Your task to perform on an android device: turn off airplane mode Image 0: 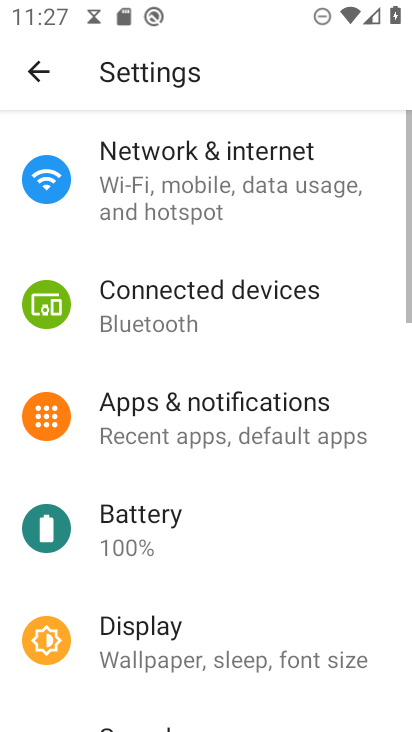
Step 0: press home button
Your task to perform on an android device: turn off airplane mode Image 1: 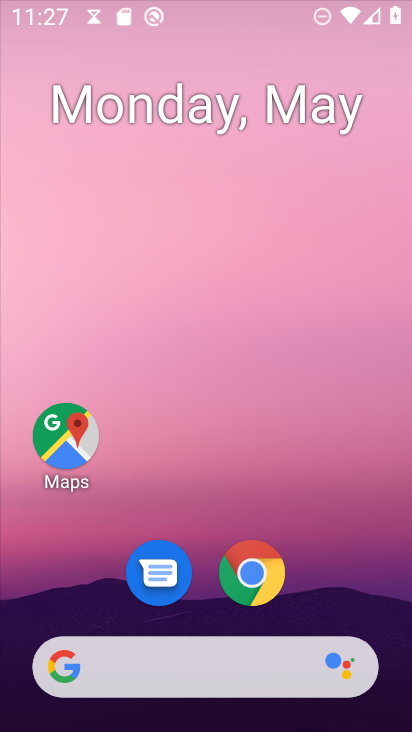
Step 1: drag from (357, 541) to (257, 50)
Your task to perform on an android device: turn off airplane mode Image 2: 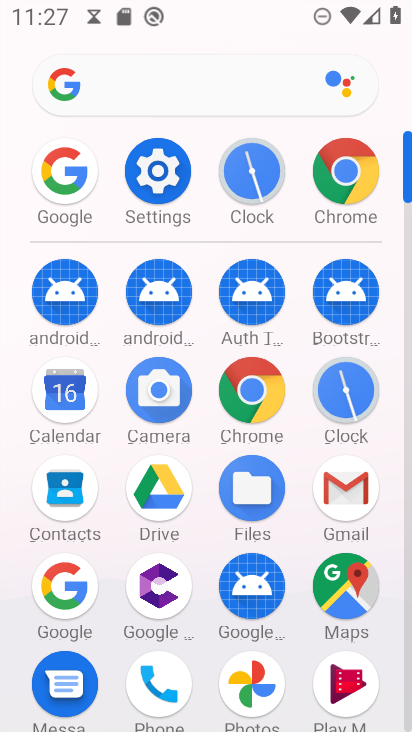
Step 2: click (161, 157)
Your task to perform on an android device: turn off airplane mode Image 3: 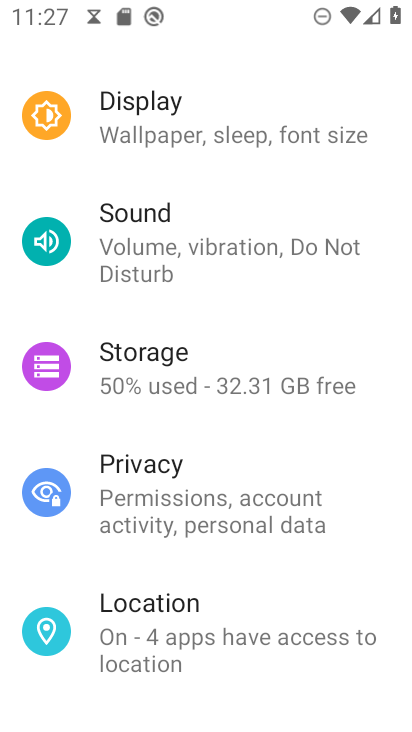
Step 3: drag from (229, 206) to (249, 628)
Your task to perform on an android device: turn off airplane mode Image 4: 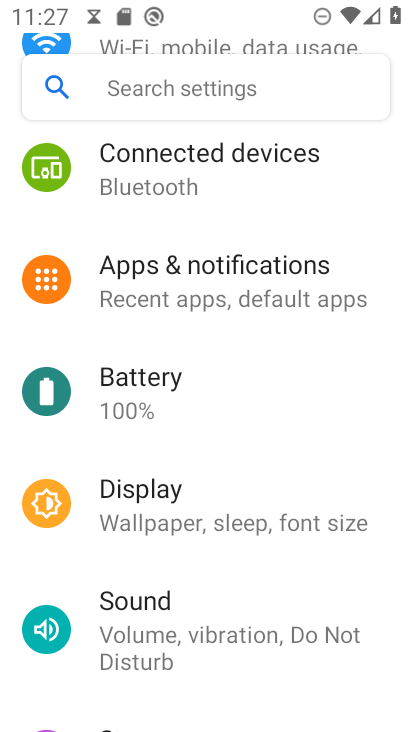
Step 4: drag from (241, 224) to (228, 535)
Your task to perform on an android device: turn off airplane mode Image 5: 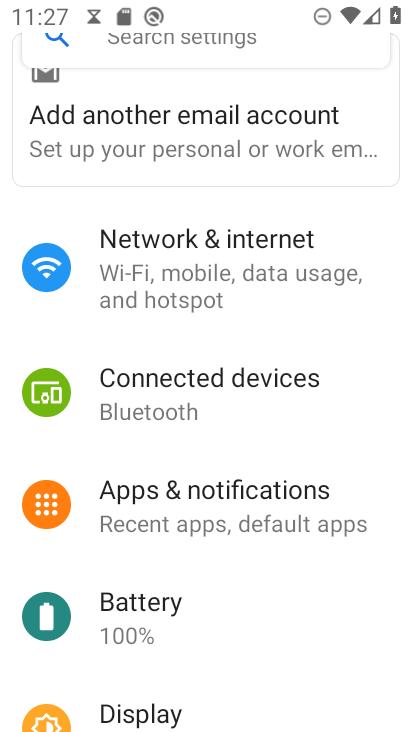
Step 5: click (227, 312)
Your task to perform on an android device: turn off airplane mode Image 6: 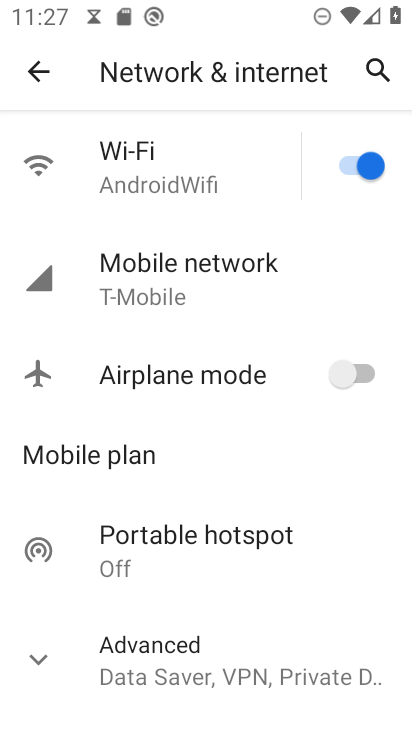
Step 6: task complete